Your task to perform on an android device: delete the emails in spam in the gmail app Image 0: 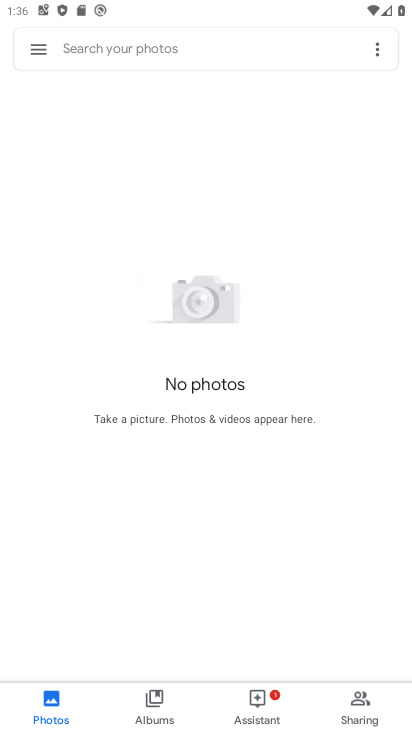
Step 0: task complete